Your task to perform on an android device: create a new album in the google photos Image 0: 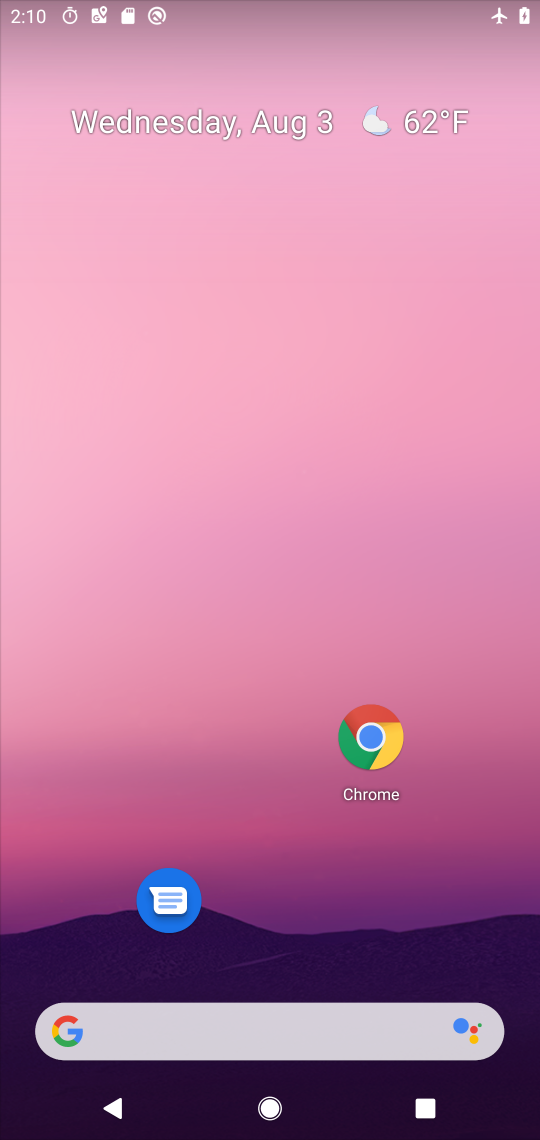
Step 0: drag from (295, 948) to (250, 215)
Your task to perform on an android device: create a new album in the google photos Image 1: 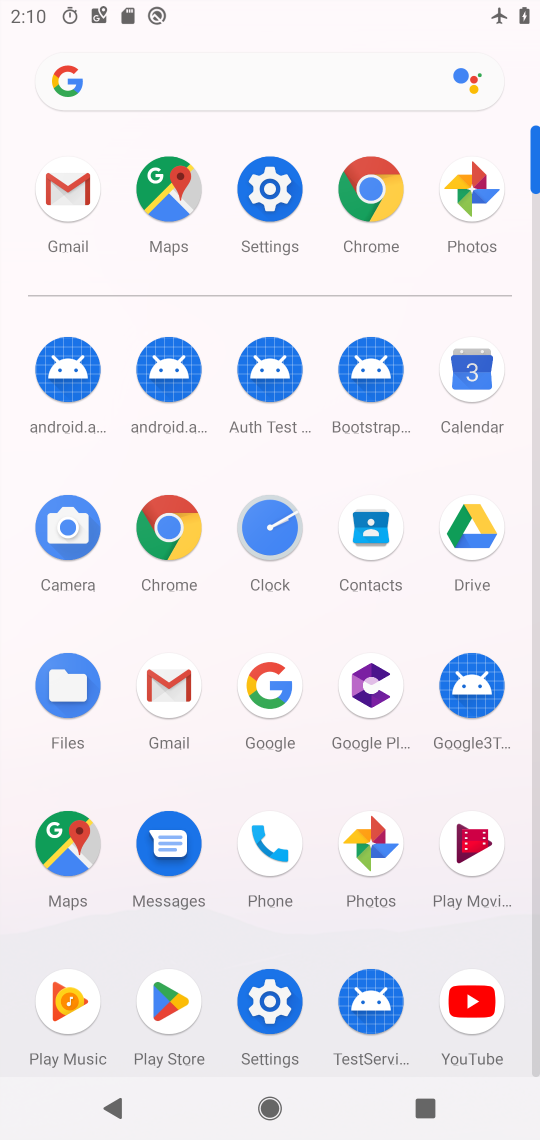
Step 1: click (192, 466)
Your task to perform on an android device: create a new album in the google photos Image 2: 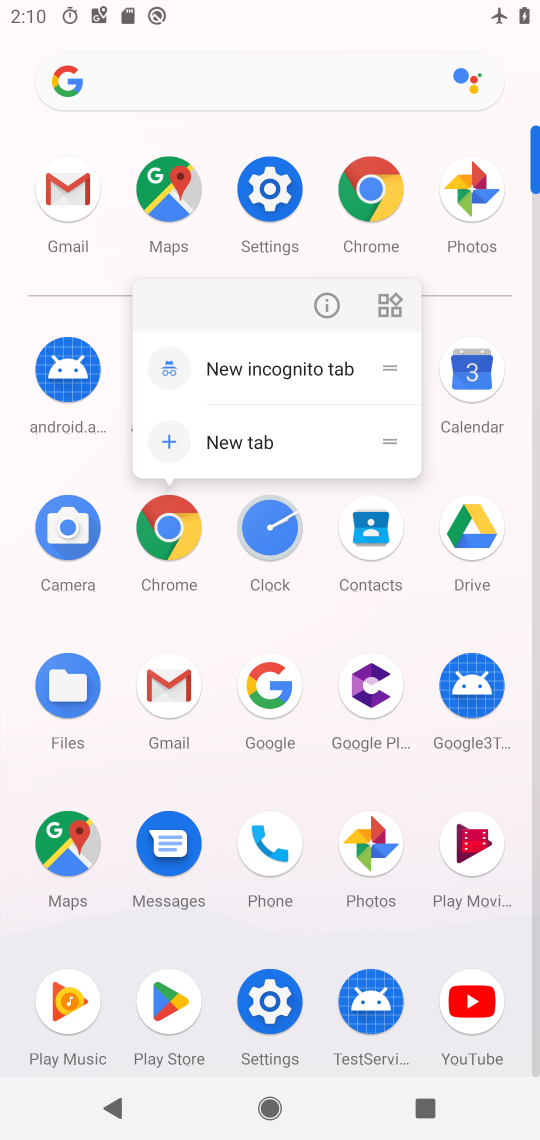
Step 2: click (358, 840)
Your task to perform on an android device: create a new album in the google photos Image 3: 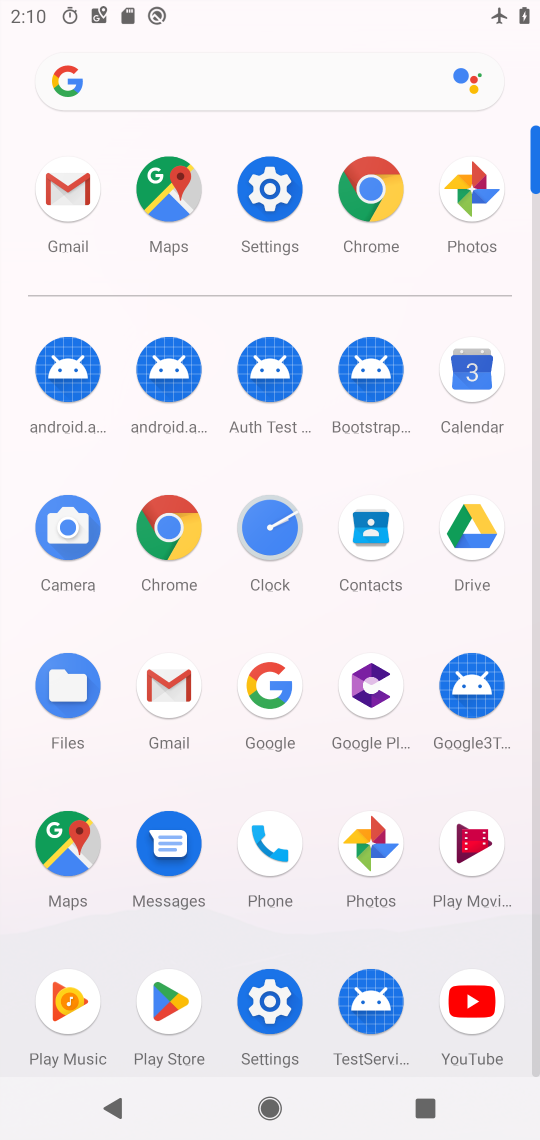
Step 3: click (358, 840)
Your task to perform on an android device: create a new album in the google photos Image 4: 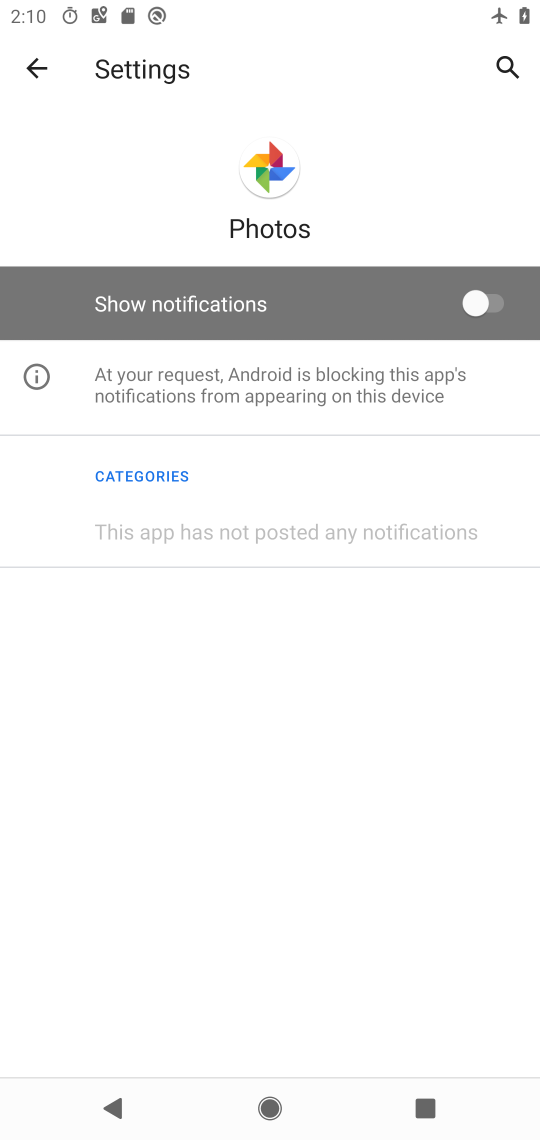
Step 4: click (34, 56)
Your task to perform on an android device: create a new album in the google photos Image 5: 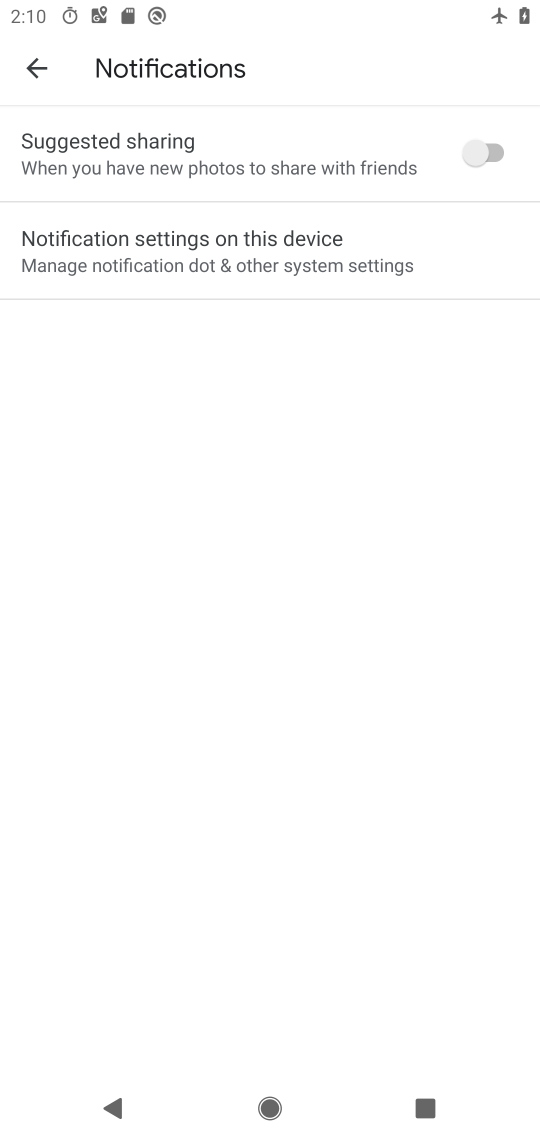
Step 5: click (18, 58)
Your task to perform on an android device: create a new album in the google photos Image 6: 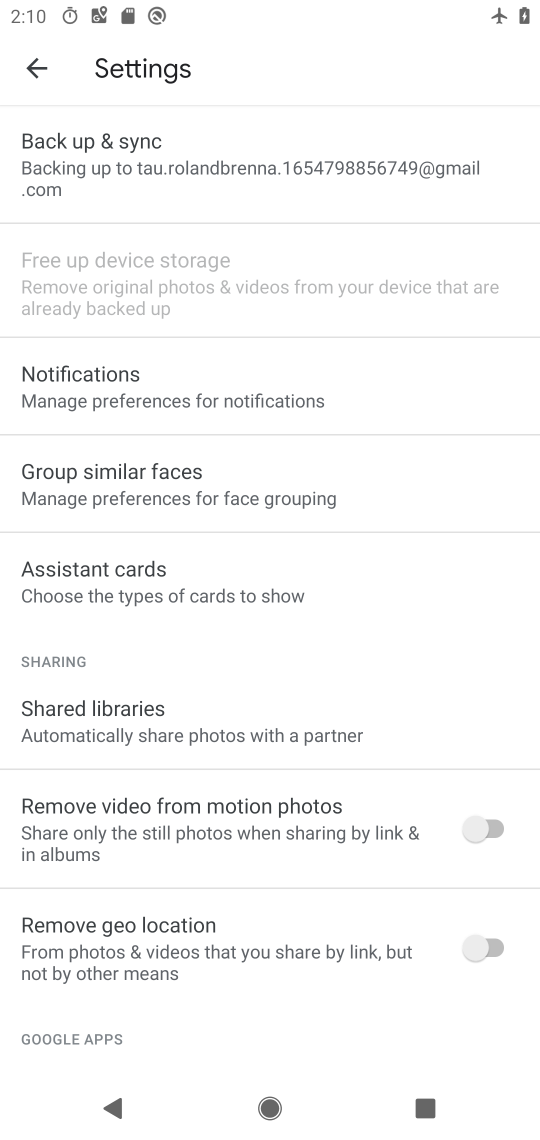
Step 6: click (39, 70)
Your task to perform on an android device: create a new album in the google photos Image 7: 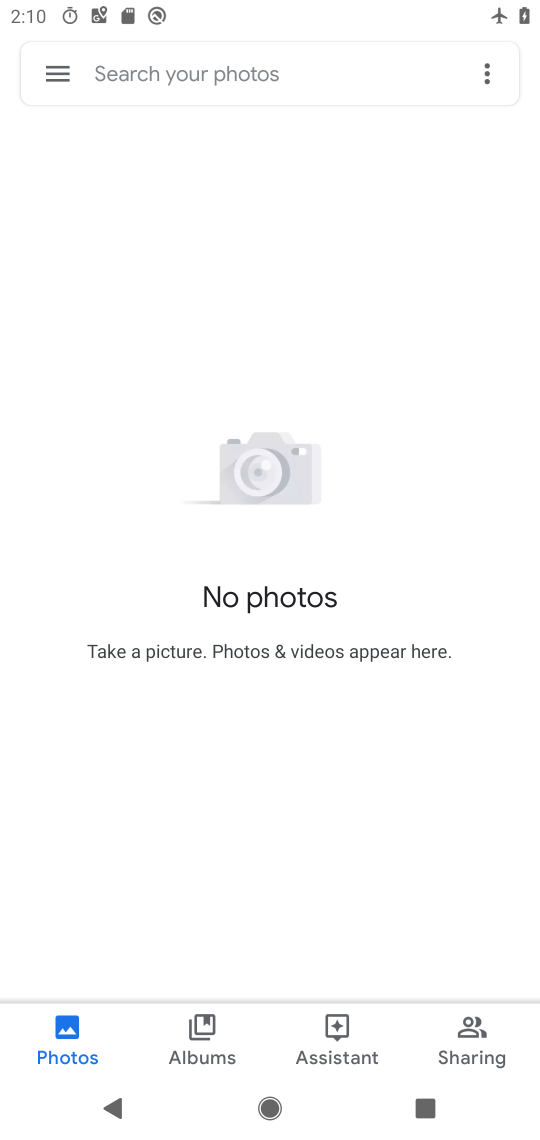
Step 7: click (195, 1034)
Your task to perform on an android device: create a new album in the google photos Image 8: 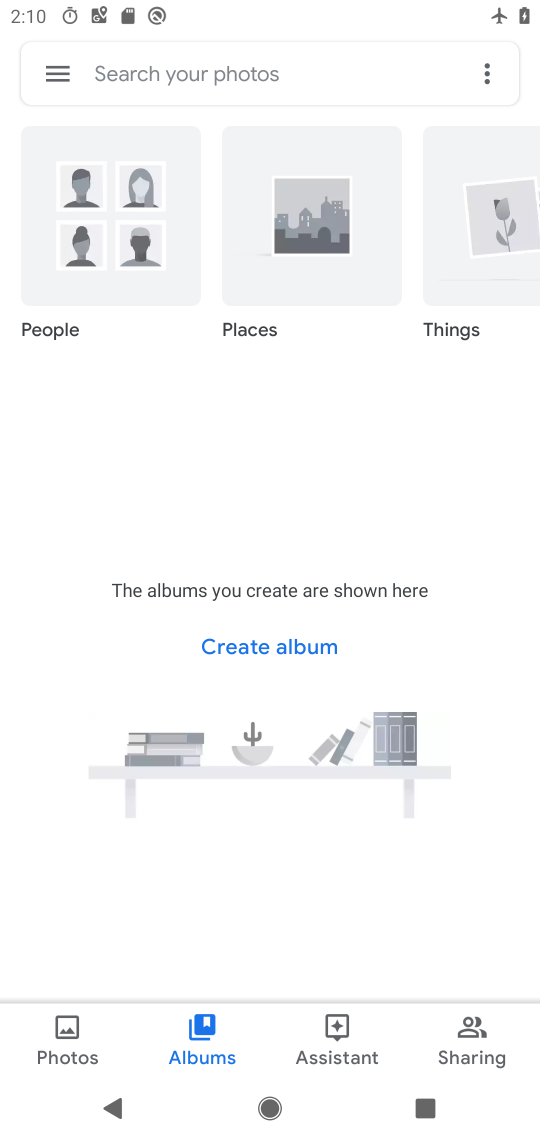
Step 8: click (292, 447)
Your task to perform on an android device: create a new album in the google photos Image 9: 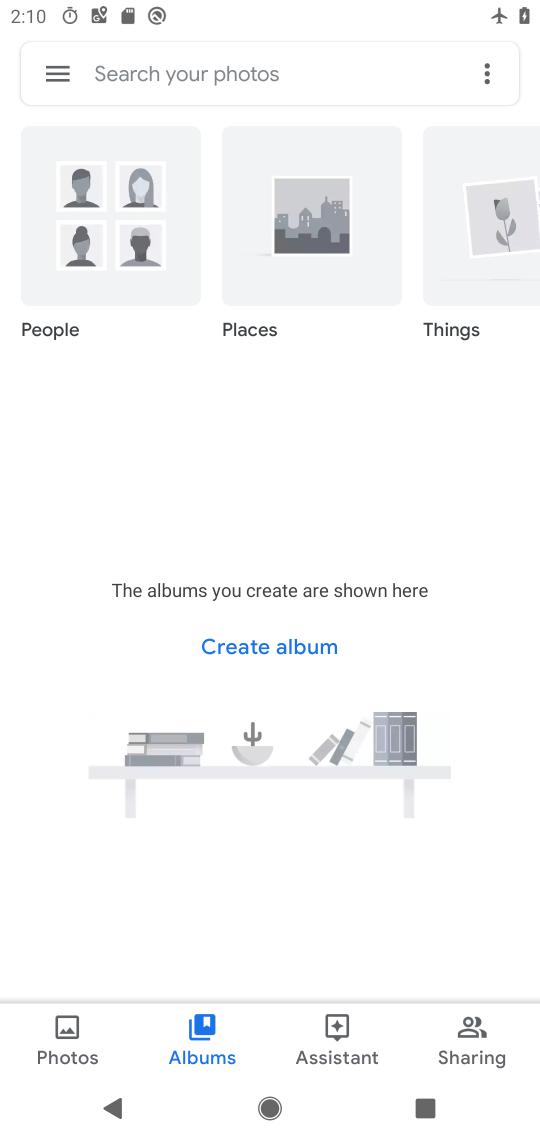
Step 9: click (275, 638)
Your task to perform on an android device: create a new album in the google photos Image 10: 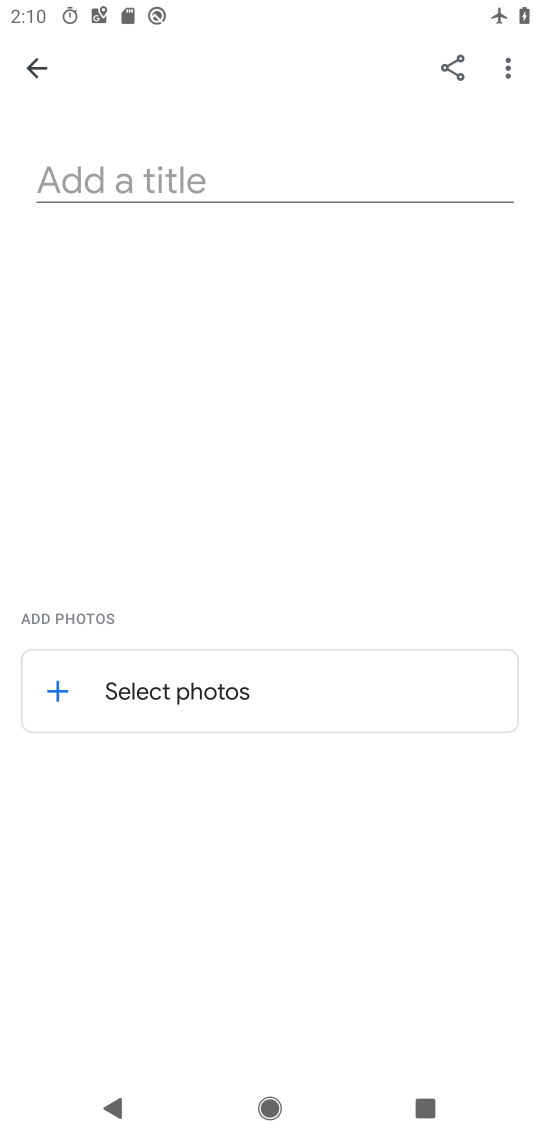
Step 10: click (303, 559)
Your task to perform on an android device: create a new album in the google photos Image 11: 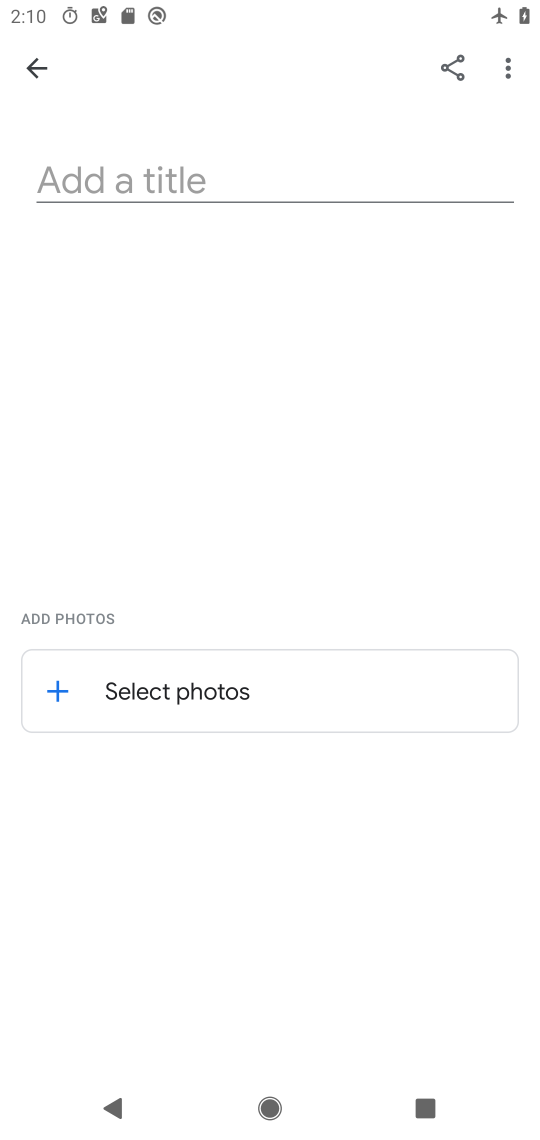
Step 11: click (304, 552)
Your task to perform on an android device: create a new album in the google photos Image 12: 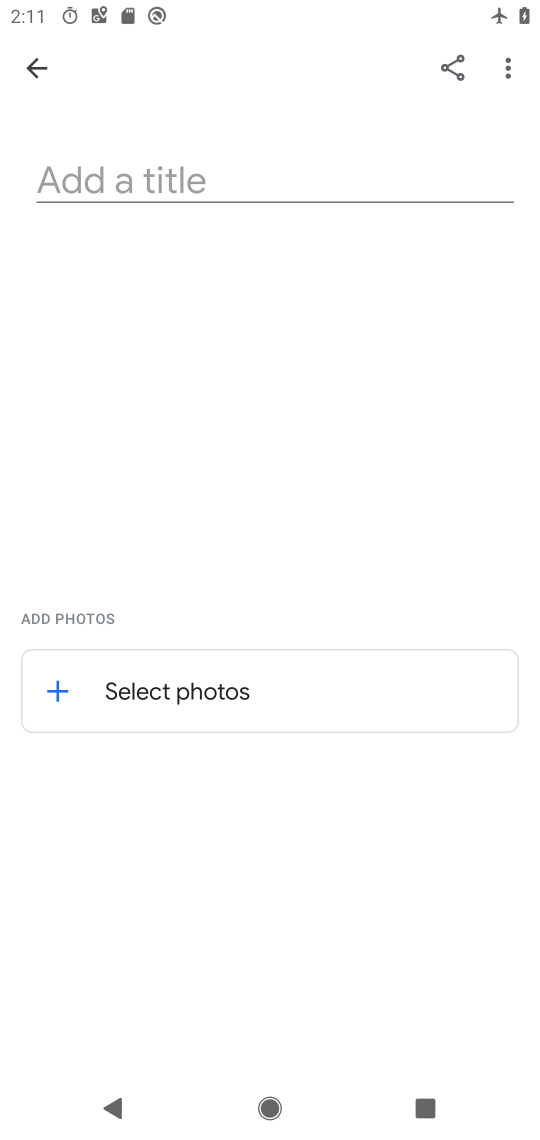
Step 12: click (279, 181)
Your task to perform on an android device: create a new album in the google photos Image 13: 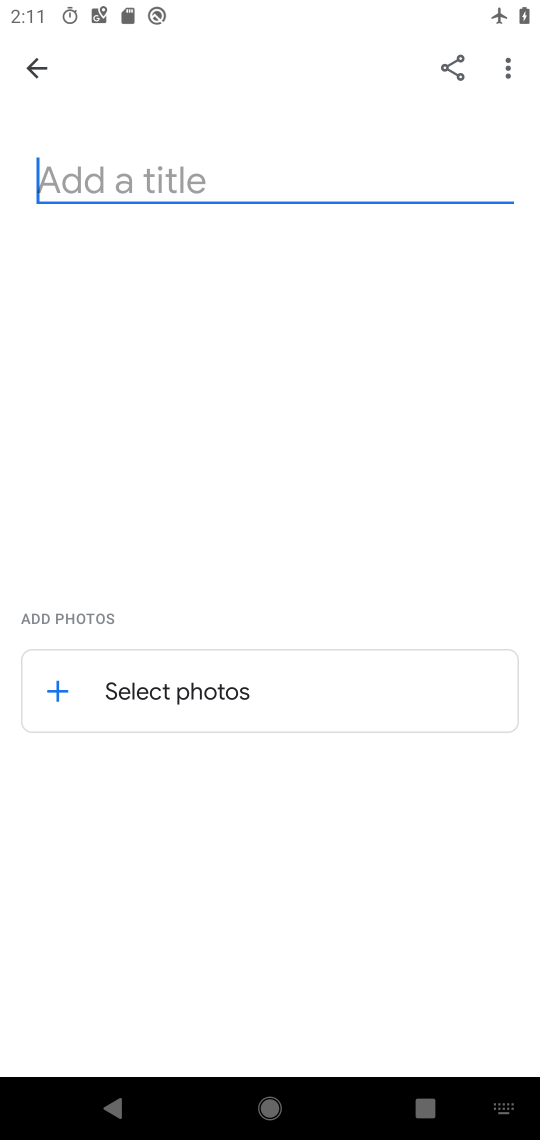
Step 13: type "uio"
Your task to perform on an android device: create a new album in the google photos Image 14: 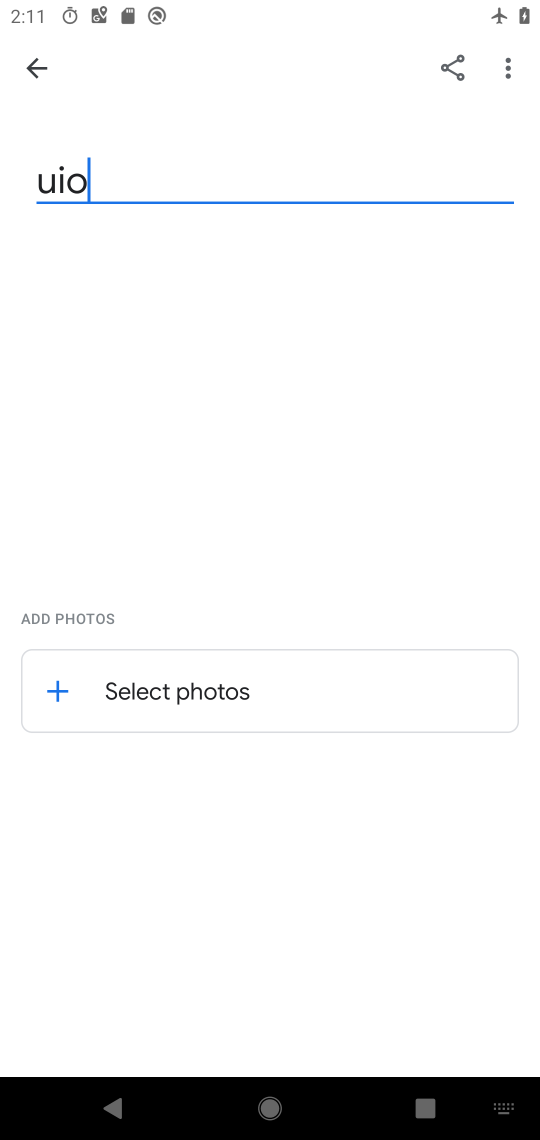
Step 14: click (214, 683)
Your task to perform on an android device: create a new album in the google photos Image 15: 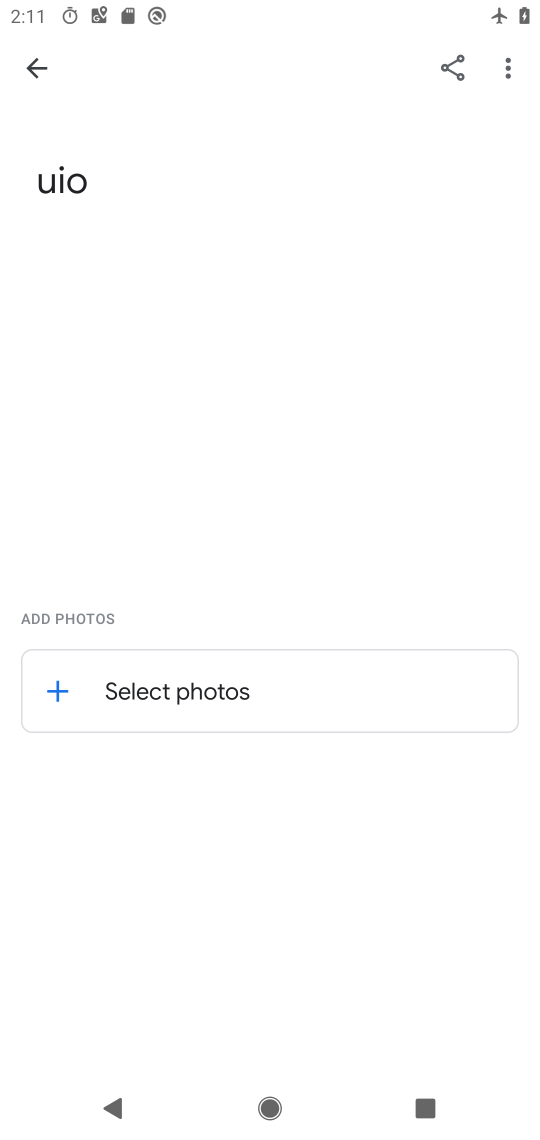
Step 15: click (190, 686)
Your task to perform on an android device: create a new album in the google photos Image 16: 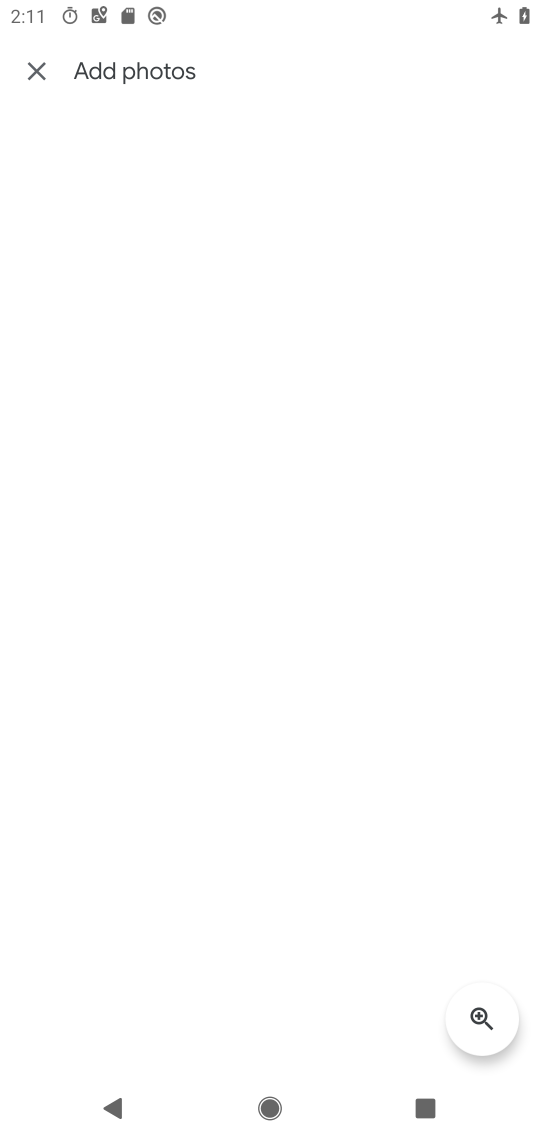
Step 16: click (33, 65)
Your task to perform on an android device: create a new album in the google photos Image 17: 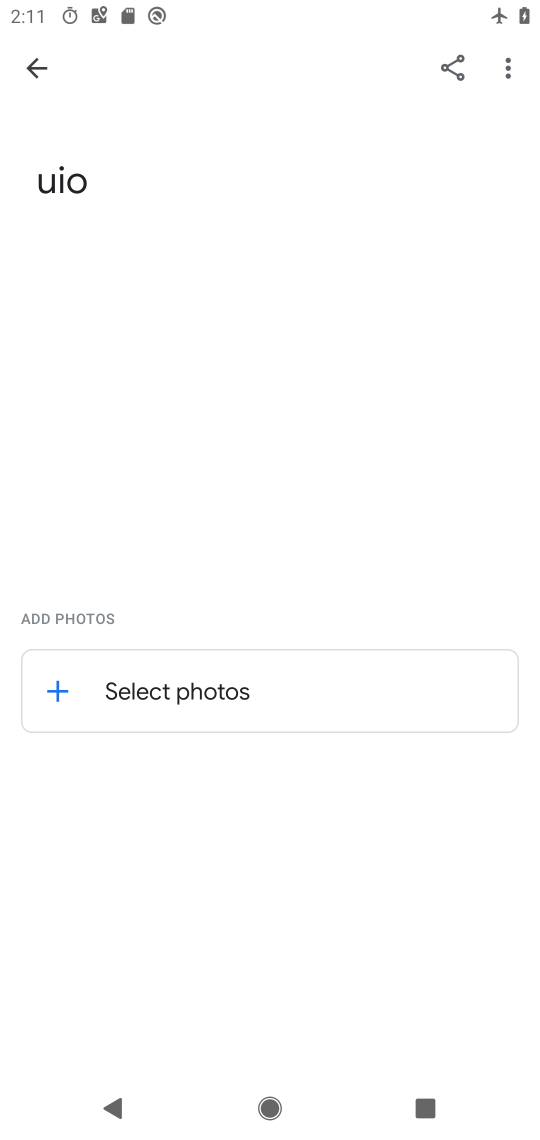
Step 17: click (46, 65)
Your task to perform on an android device: create a new album in the google photos Image 18: 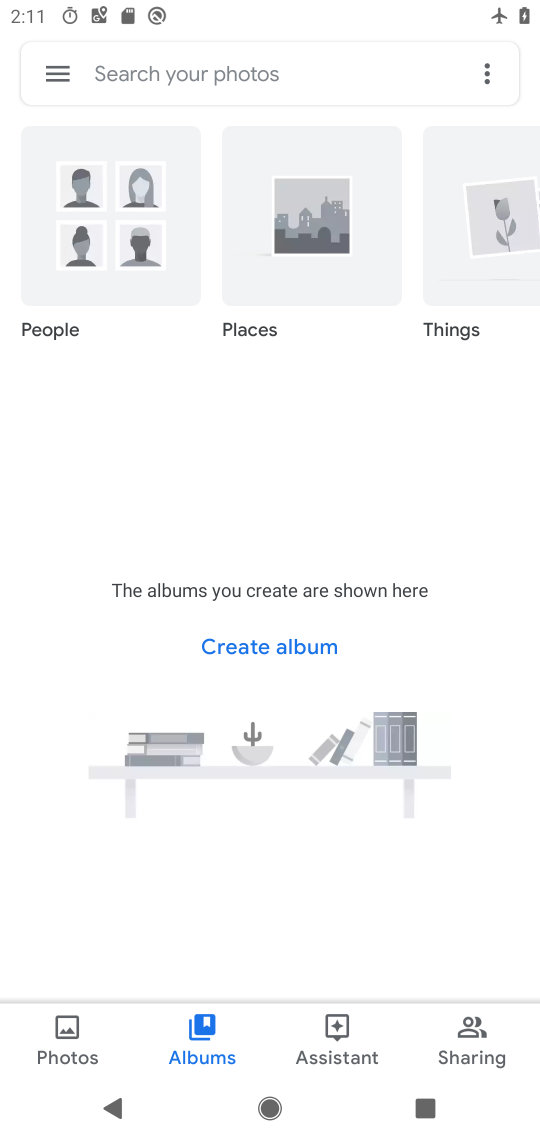
Step 18: task complete